Your task to perform on an android device: Go to Wikipedia Image 0: 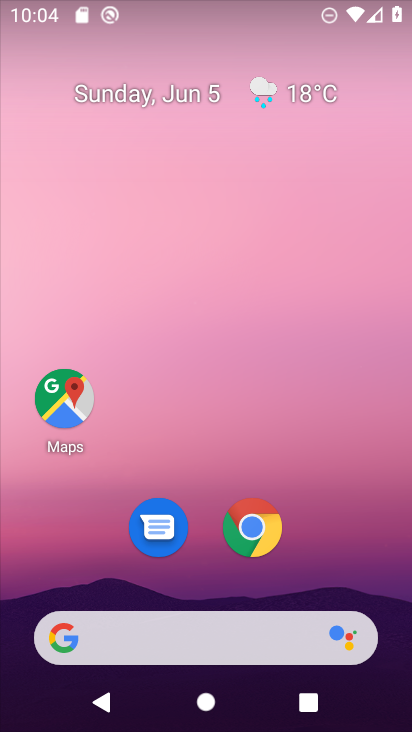
Step 0: click (245, 528)
Your task to perform on an android device: Go to Wikipedia Image 1: 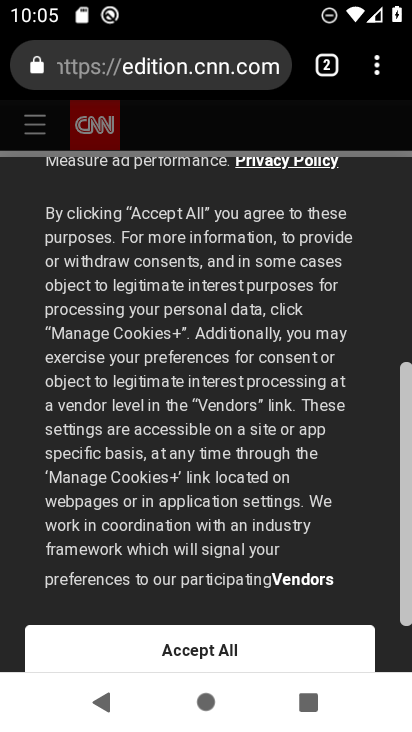
Step 1: click (332, 64)
Your task to perform on an android device: Go to Wikipedia Image 2: 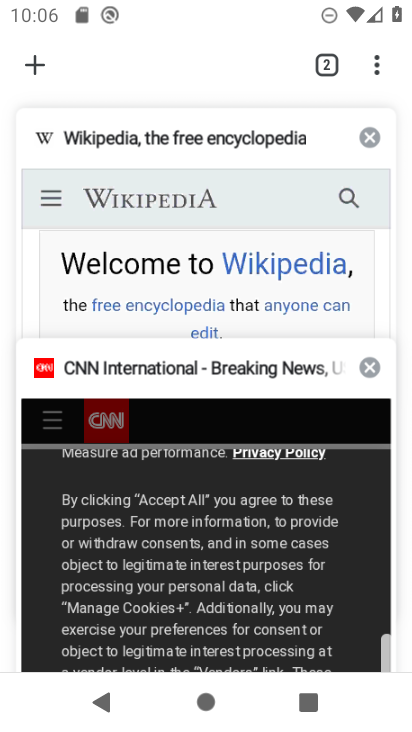
Step 2: click (212, 155)
Your task to perform on an android device: Go to Wikipedia Image 3: 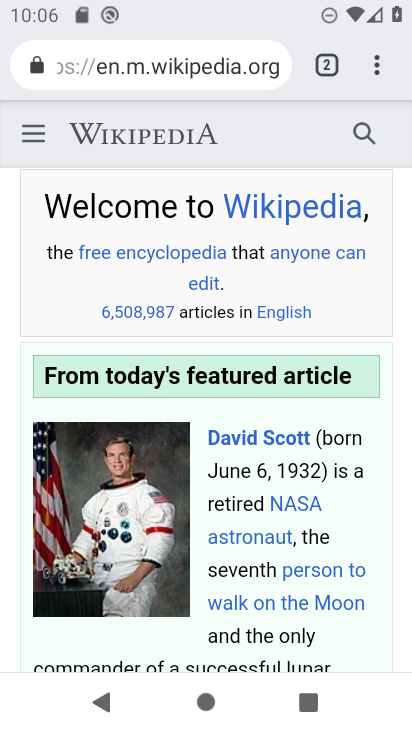
Step 3: task complete